Your task to perform on an android device: open chrome privacy settings Image 0: 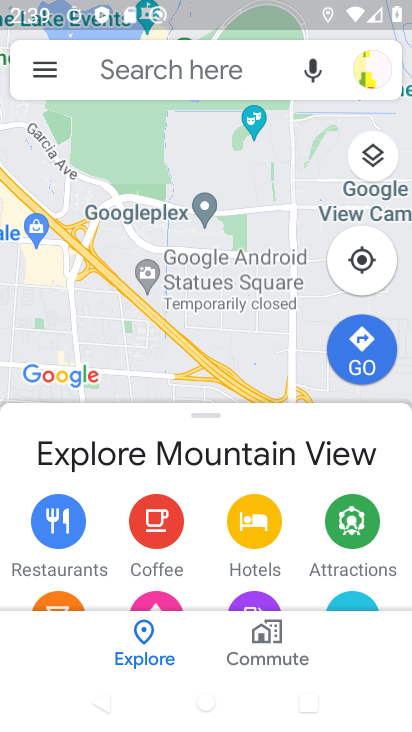
Step 0: press home button
Your task to perform on an android device: open chrome privacy settings Image 1: 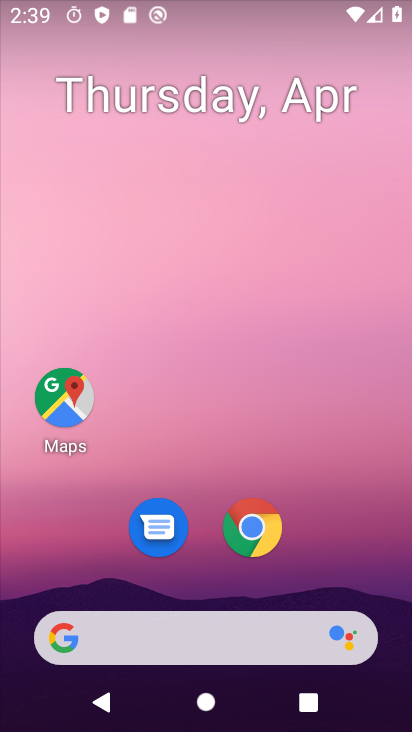
Step 1: drag from (341, 516) to (363, 109)
Your task to perform on an android device: open chrome privacy settings Image 2: 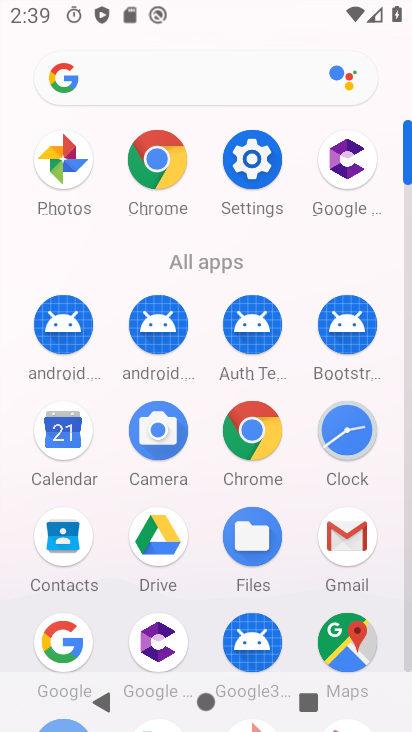
Step 2: click (252, 426)
Your task to perform on an android device: open chrome privacy settings Image 3: 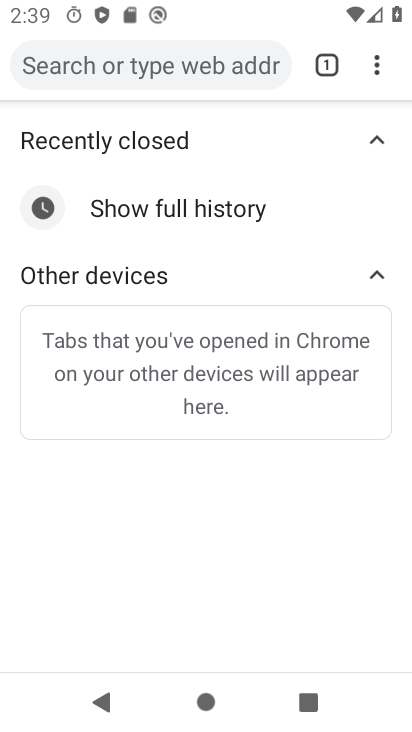
Step 3: drag from (378, 66) to (192, 570)
Your task to perform on an android device: open chrome privacy settings Image 4: 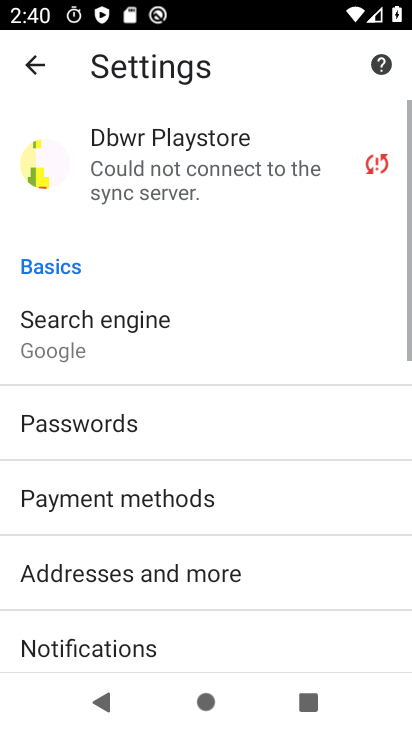
Step 4: drag from (195, 555) to (309, 94)
Your task to perform on an android device: open chrome privacy settings Image 5: 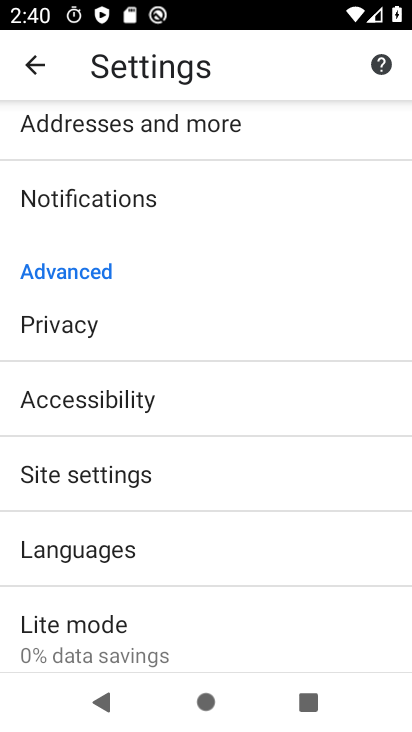
Step 5: click (69, 332)
Your task to perform on an android device: open chrome privacy settings Image 6: 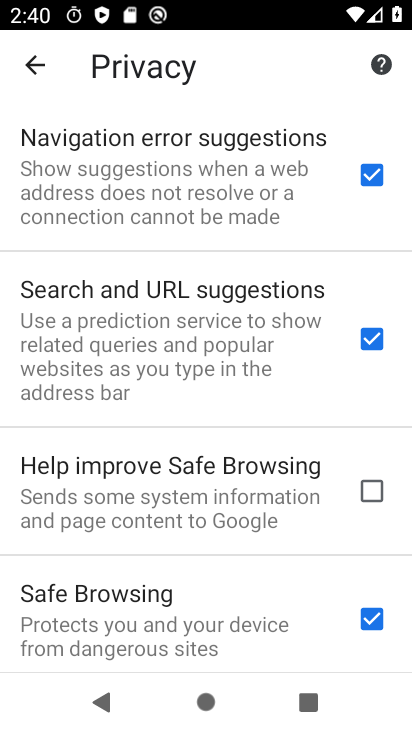
Step 6: task complete